Your task to perform on an android device: Open Chrome and go to the settings page Image 0: 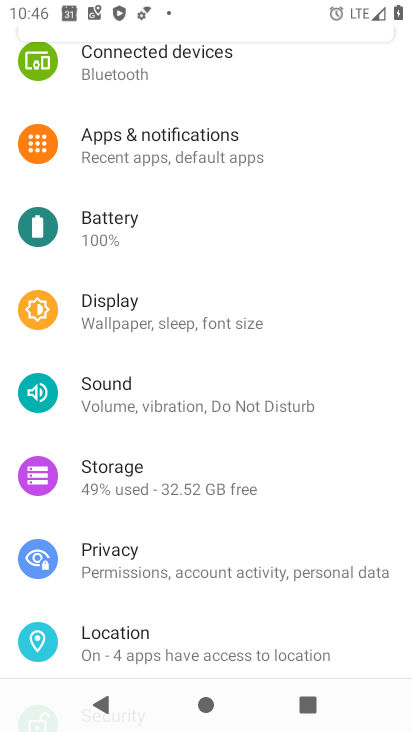
Step 0: press home button
Your task to perform on an android device: Open Chrome and go to the settings page Image 1: 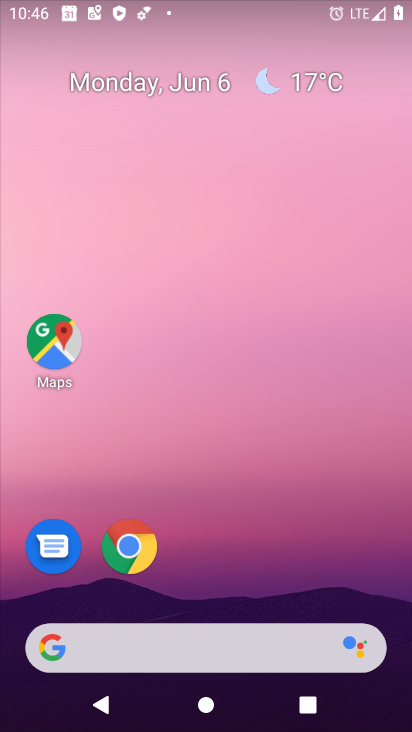
Step 1: drag from (261, 610) to (327, 0)
Your task to perform on an android device: Open Chrome and go to the settings page Image 2: 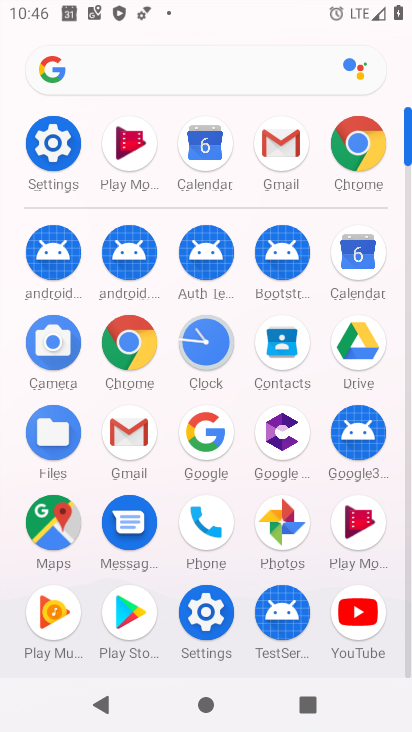
Step 2: click (139, 344)
Your task to perform on an android device: Open Chrome and go to the settings page Image 3: 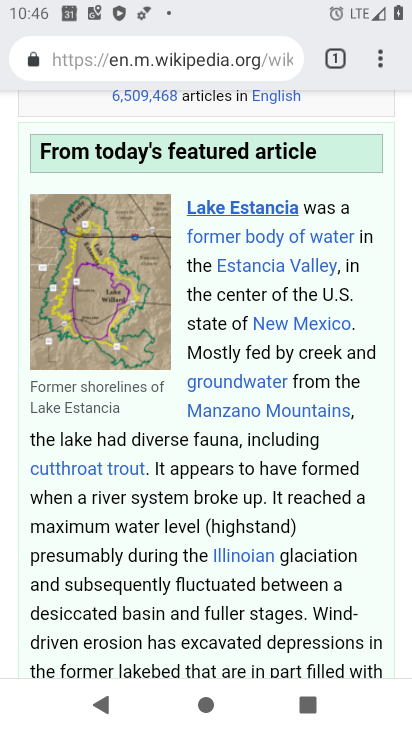
Step 3: click (374, 52)
Your task to perform on an android device: Open Chrome and go to the settings page Image 4: 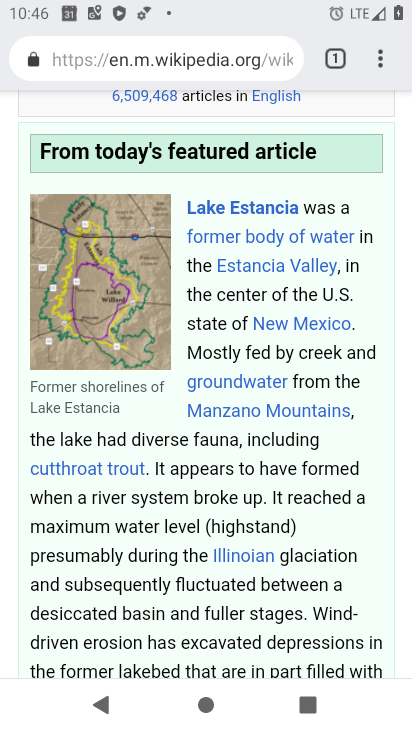
Step 4: click (386, 61)
Your task to perform on an android device: Open Chrome and go to the settings page Image 5: 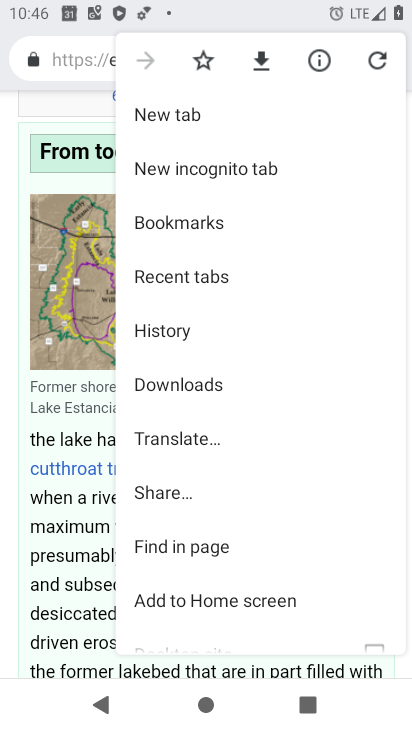
Step 5: drag from (207, 581) to (237, 445)
Your task to perform on an android device: Open Chrome and go to the settings page Image 6: 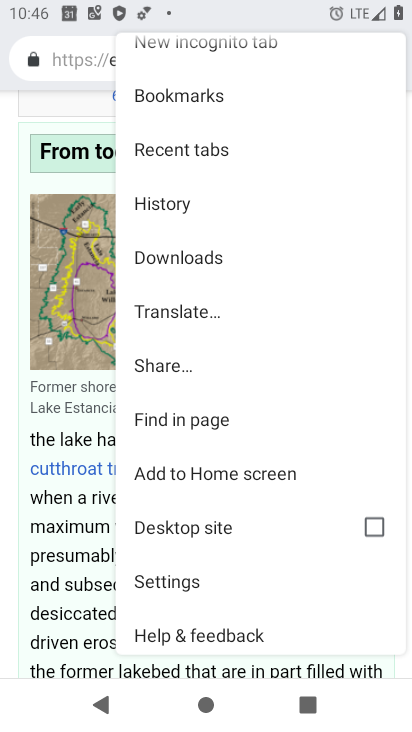
Step 6: click (182, 585)
Your task to perform on an android device: Open Chrome and go to the settings page Image 7: 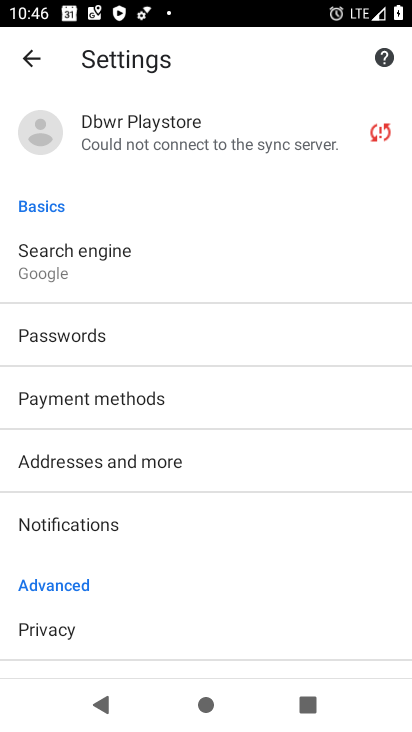
Step 7: task complete